Your task to perform on an android device: Is it going to rain today? Image 0: 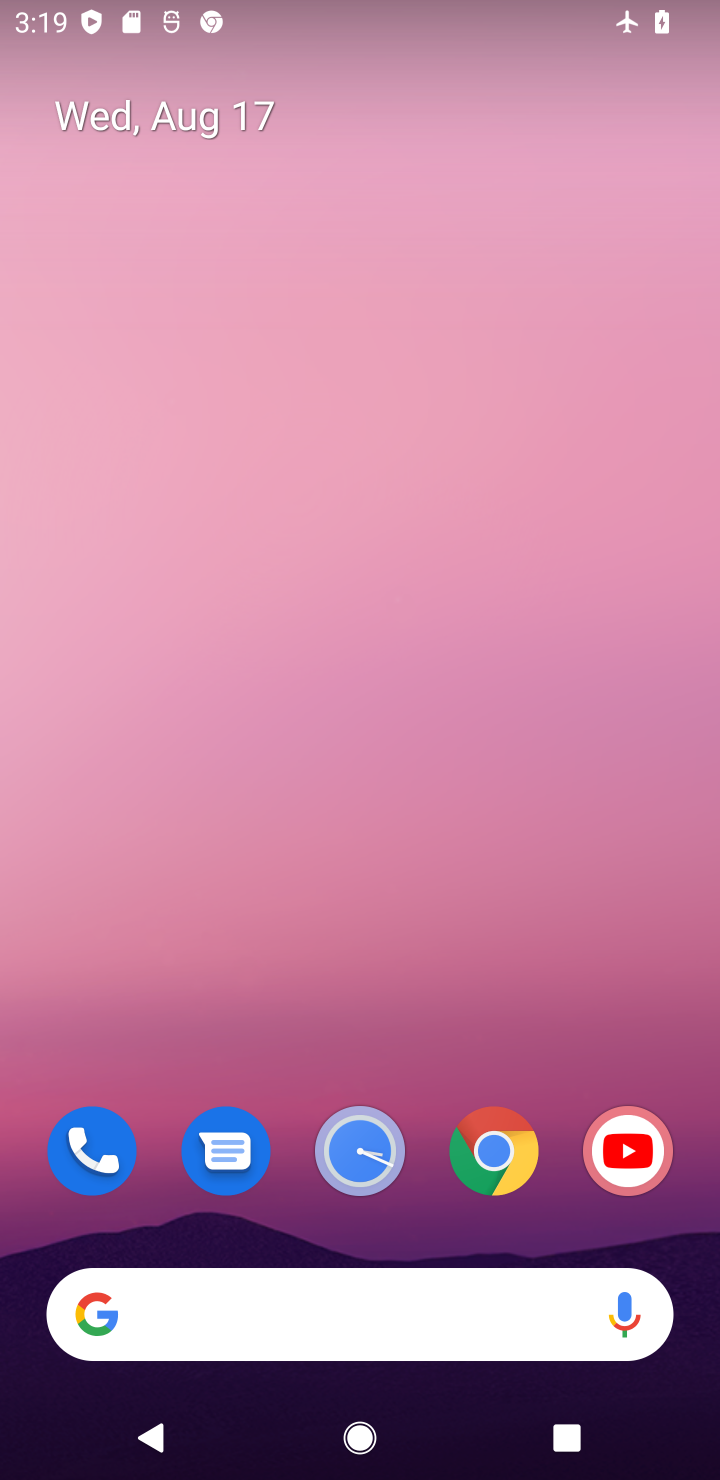
Step 0: drag from (339, 1296) to (359, 221)
Your task to perform on an android device: Is it going to rain today? Image 1: 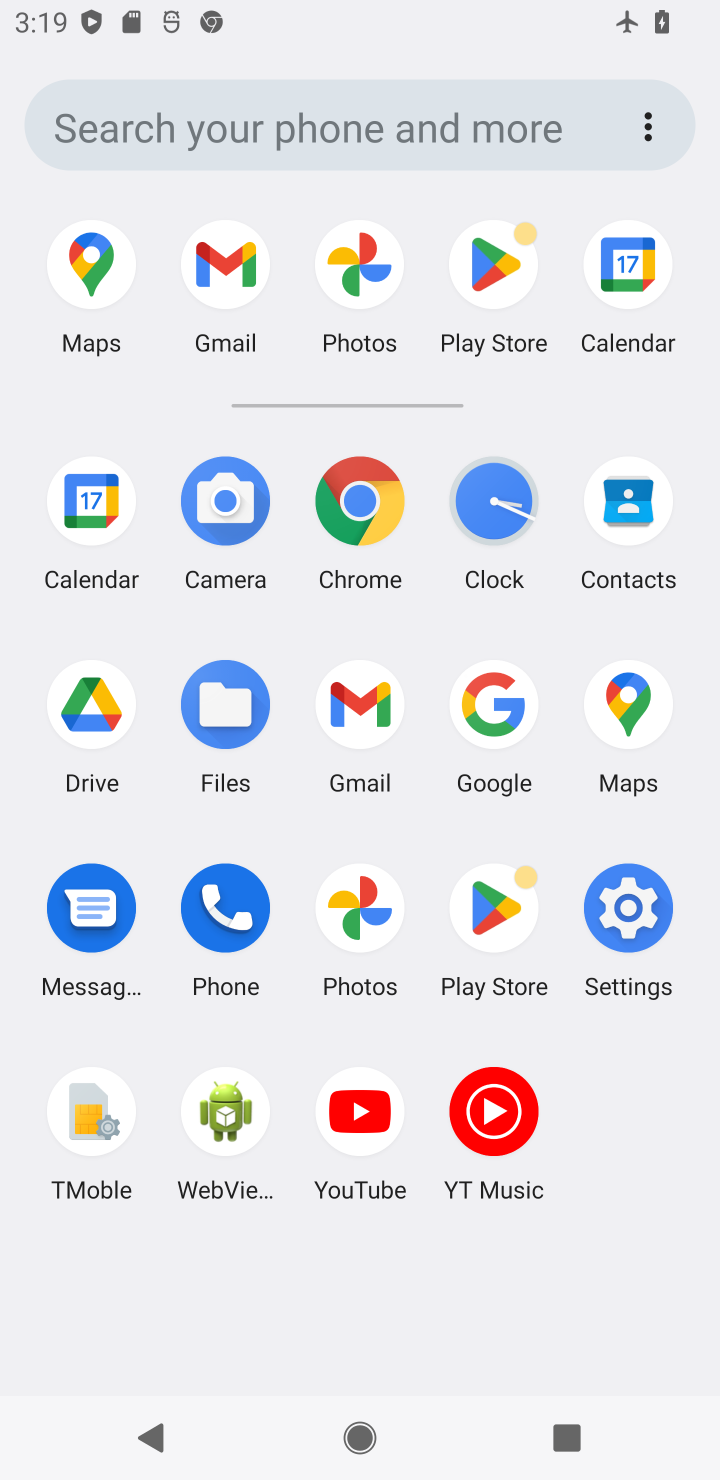
Step 1: click (336, 489)
Your task to perform on an android device: Is it going to rain today? Image 2: 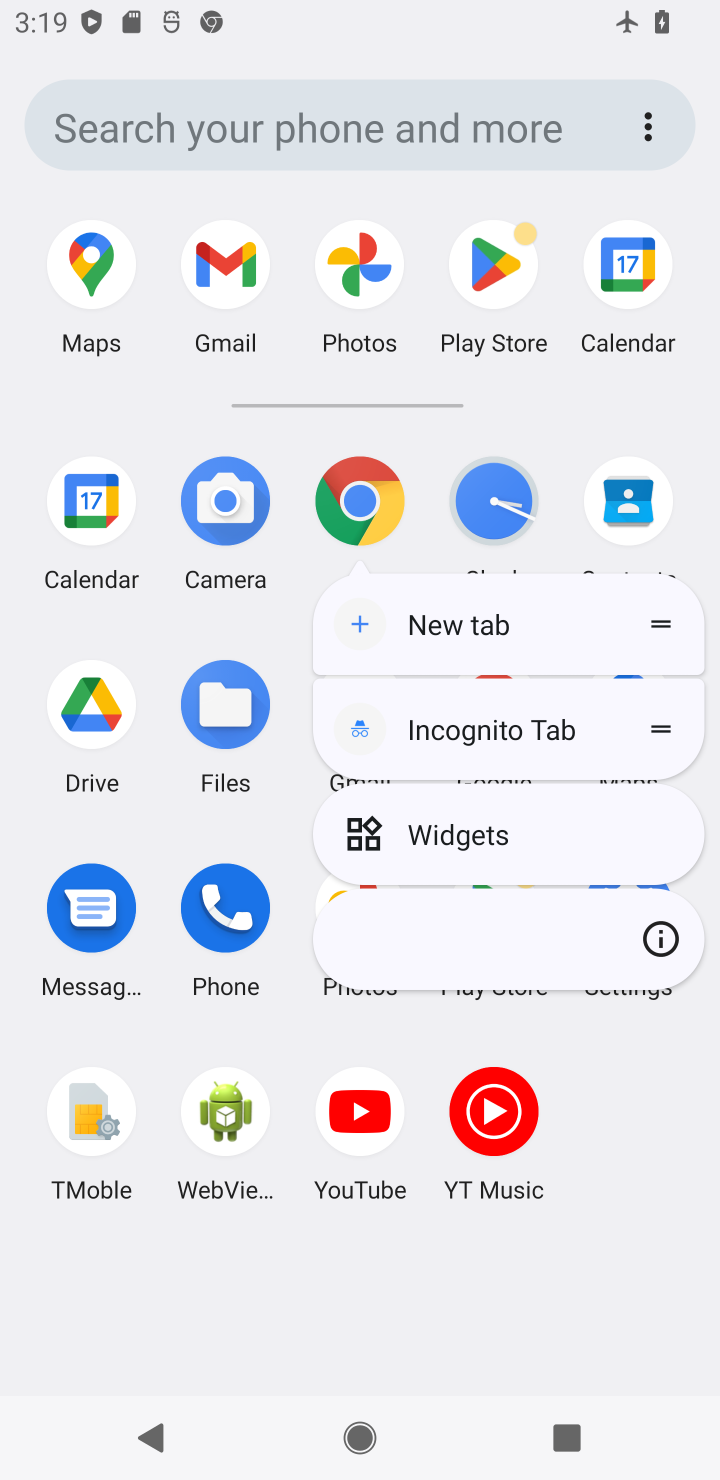
Step 2: click (343, 502)
Your task to perform on an android device: Is it going to rain today? Image 3: 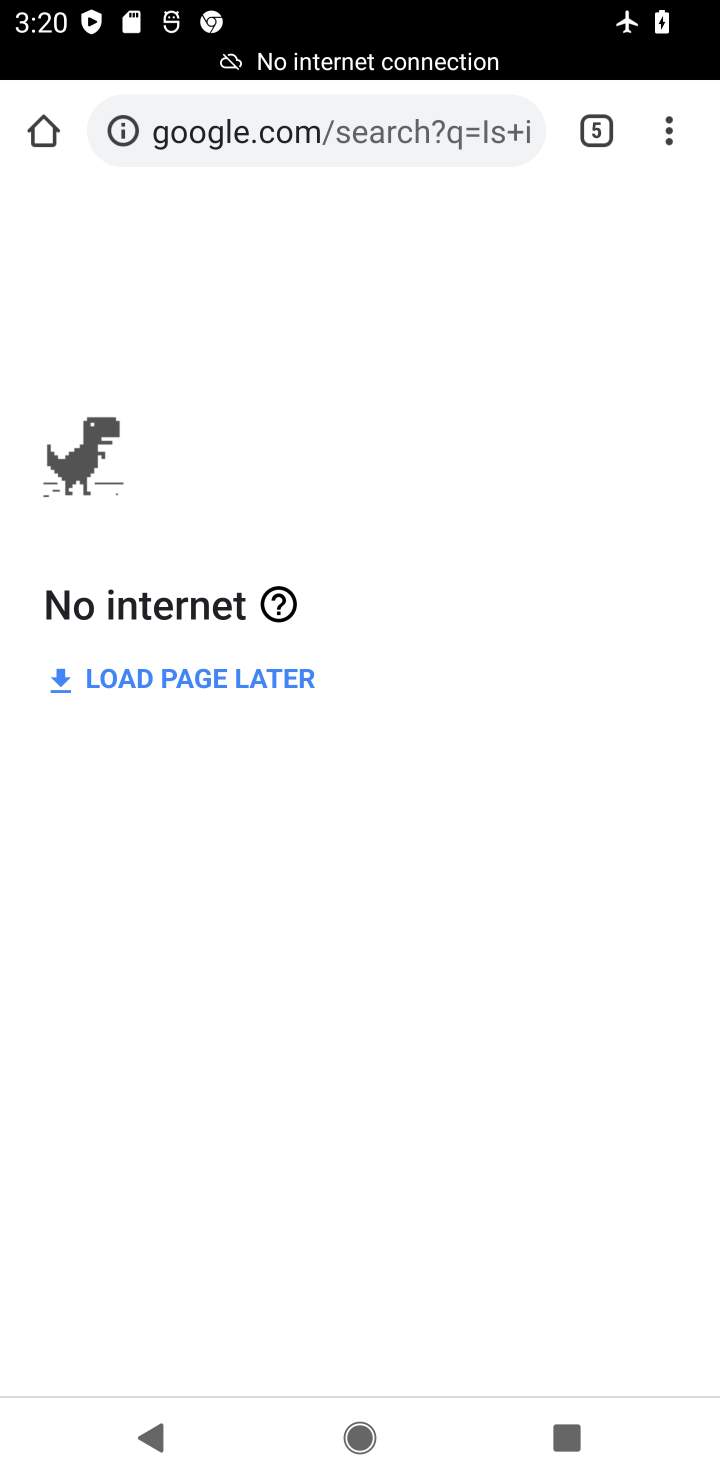
Step 3: click (666, 136)
Your task to perform on an android device: Is it going to rain today? Image 4: 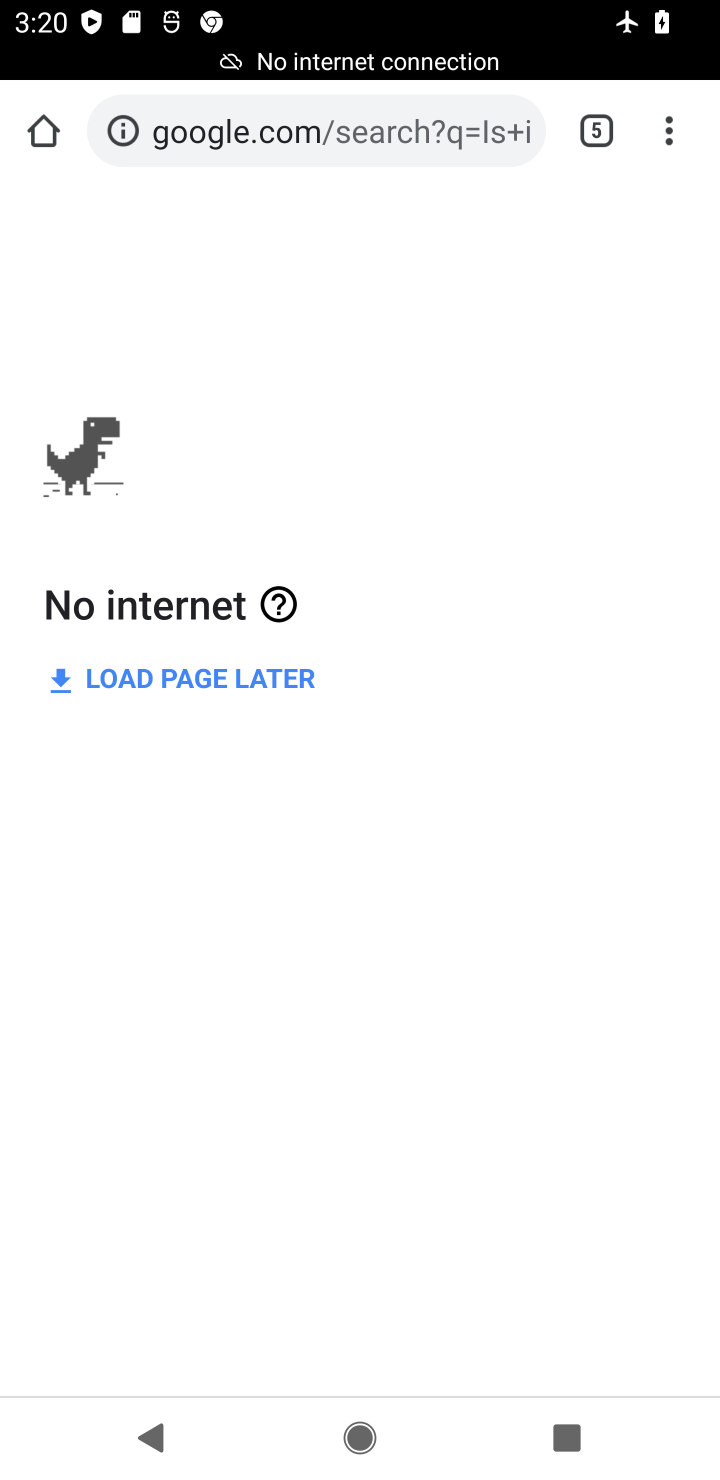
Step 4: click (674, 132)
Your task to perform on an android device: Is it going to rain today? Image 5: 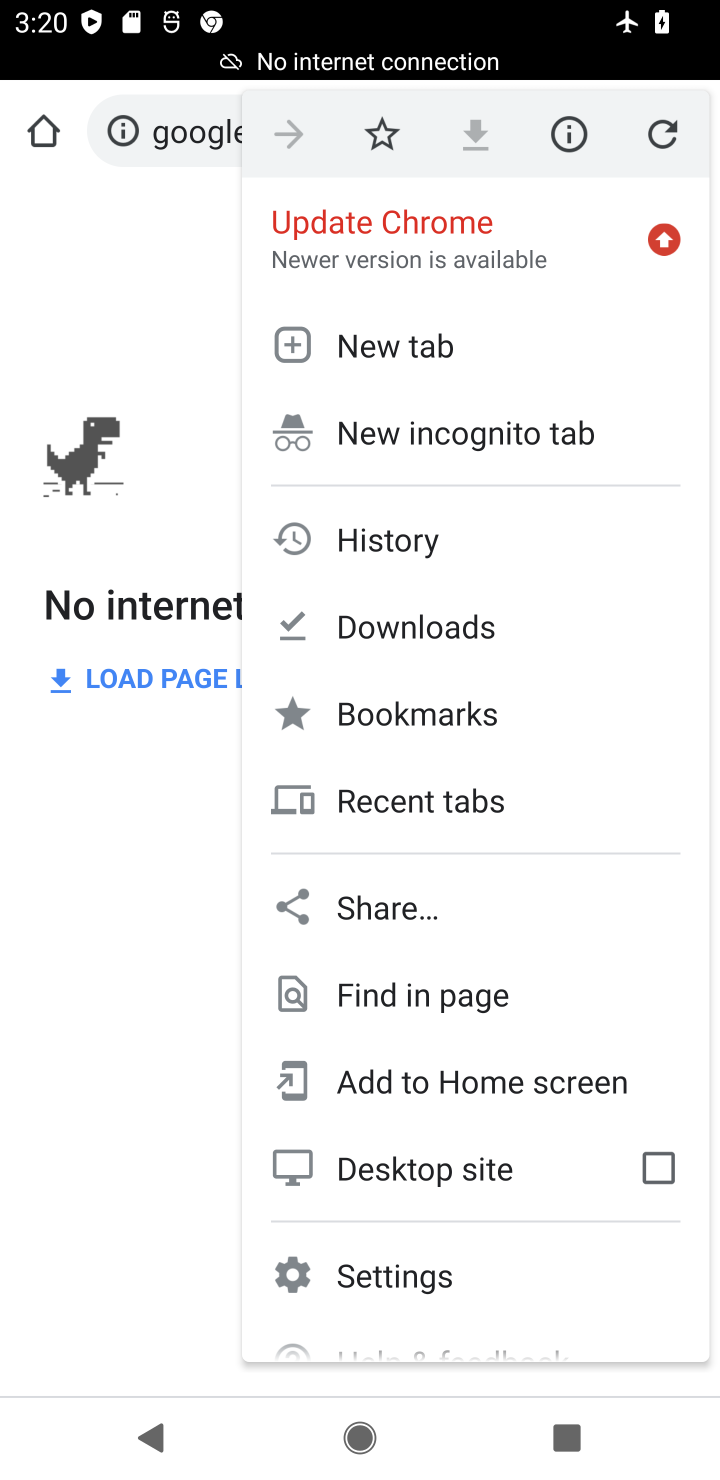
Step 5: click (369, 355)
Your task to perform on an android device: Is it going to rain today? Image 6: 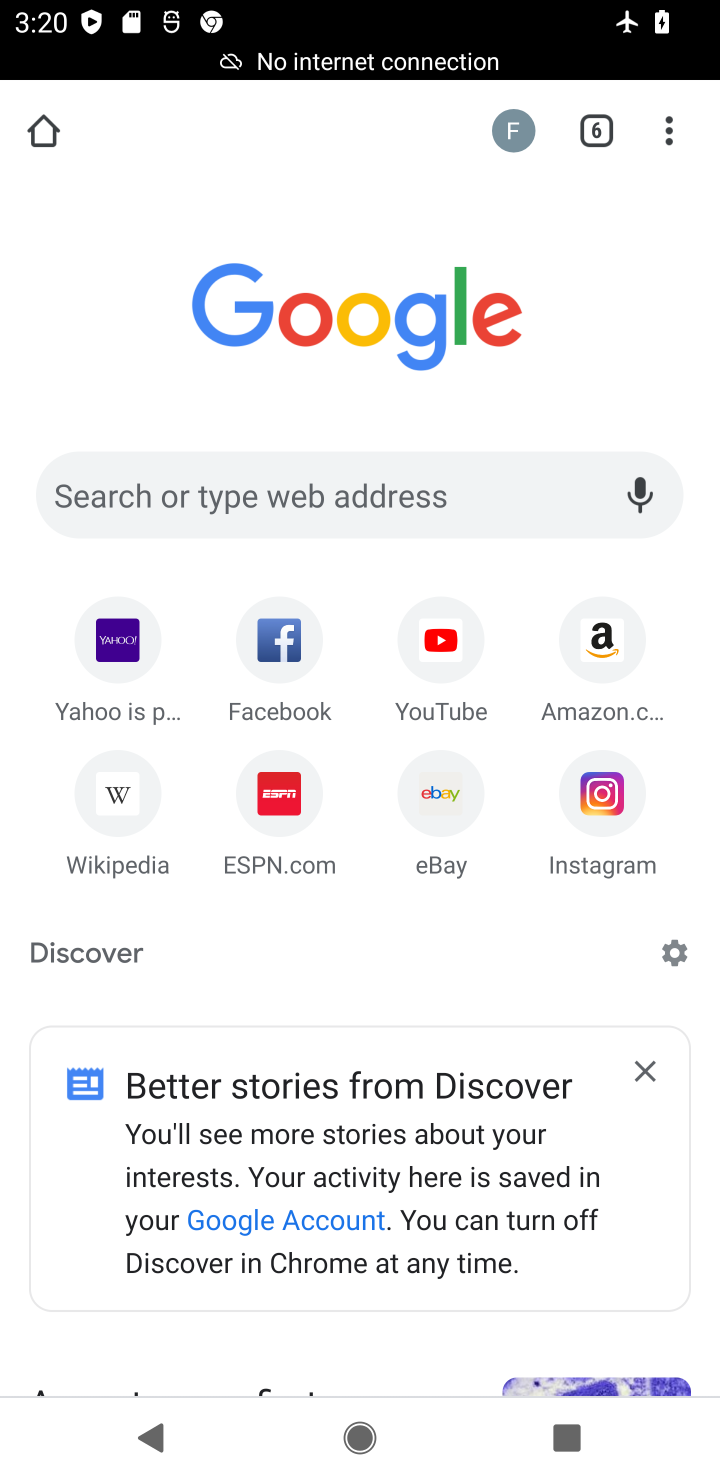
Step 6: click (336, 482)
Your task to perform on an android device: Is it going to rain today? Image 7: 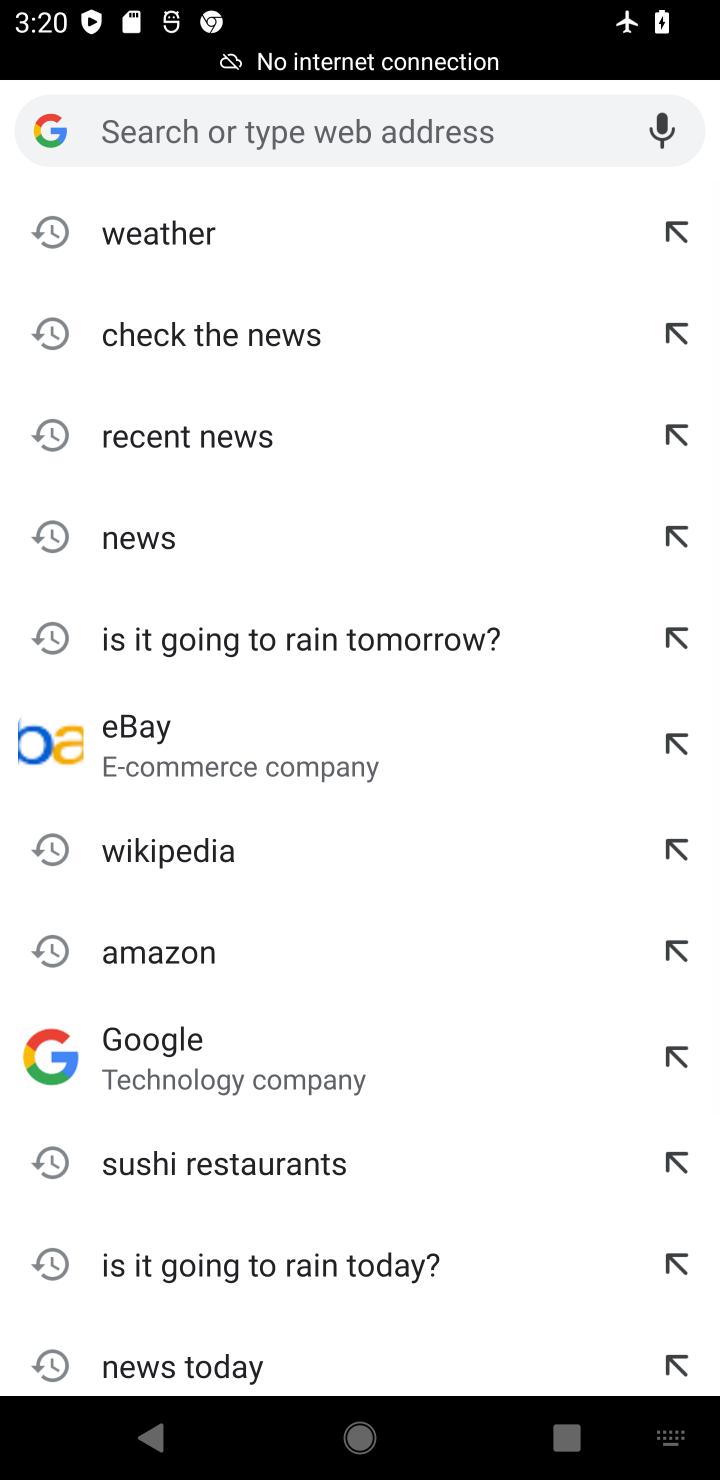
Step 7: type "Is it going to rain today? "
Your task to perform on an android device: Is it going to rain today? Image 8: 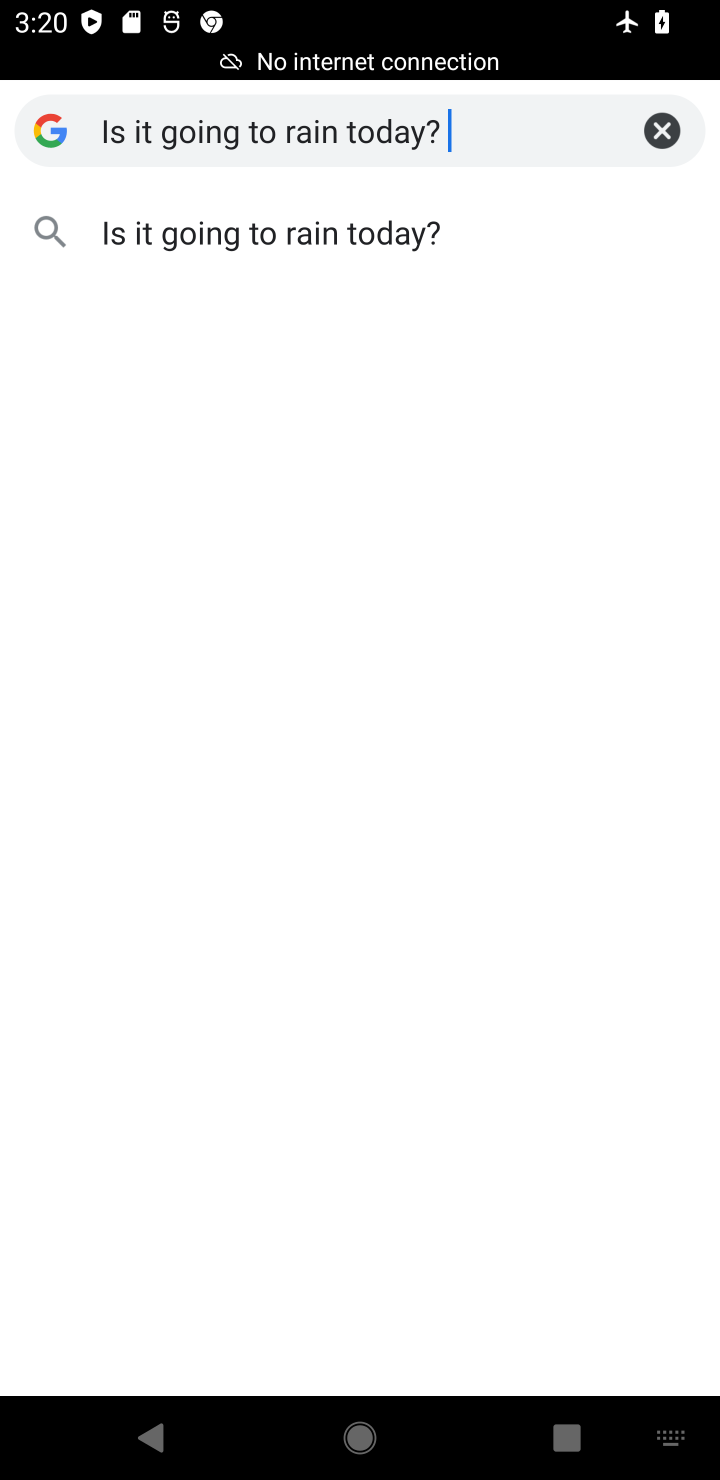
Step 8: click (388, 238)
Your task to perform on an android device: Is it going to rain today? Image 9: 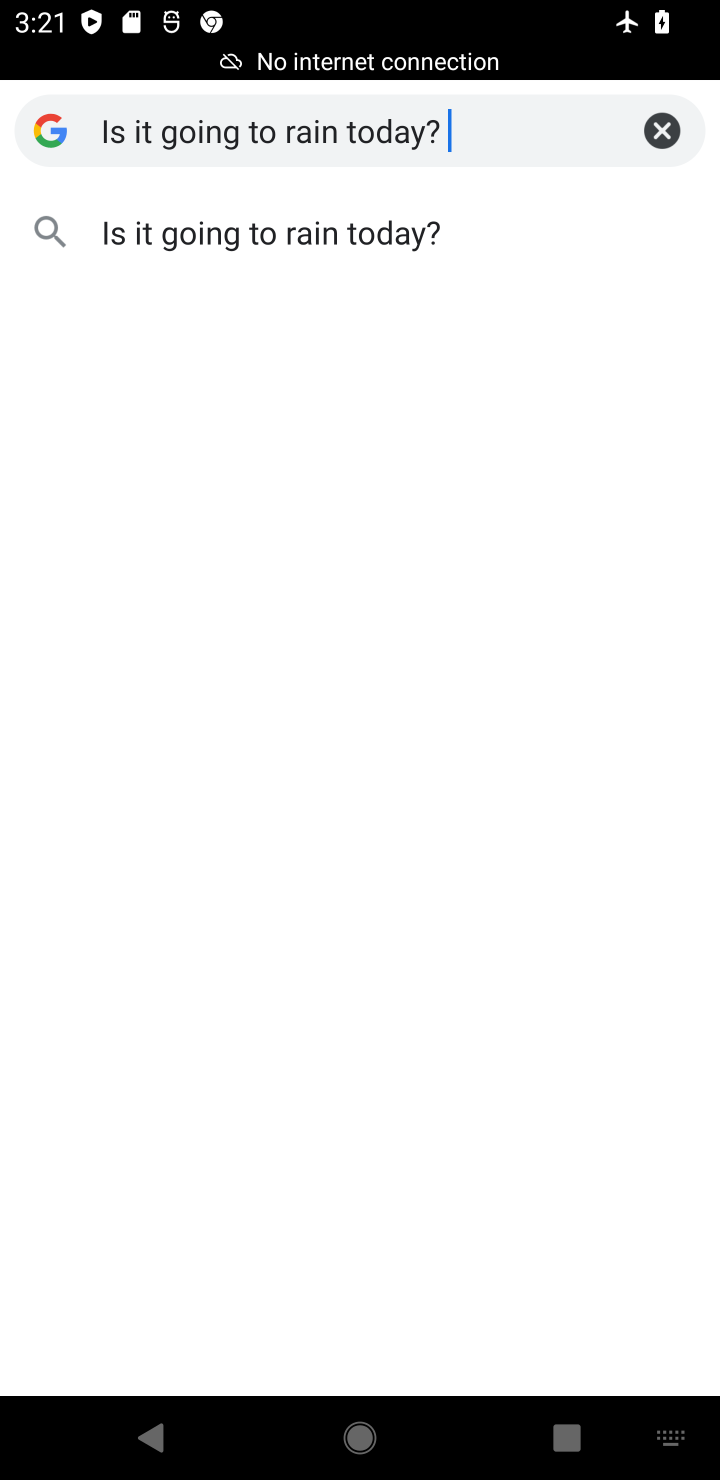
Step 9: click (388, 238)
Your task to perform on an android device: Is it going to rain today? Image 10: 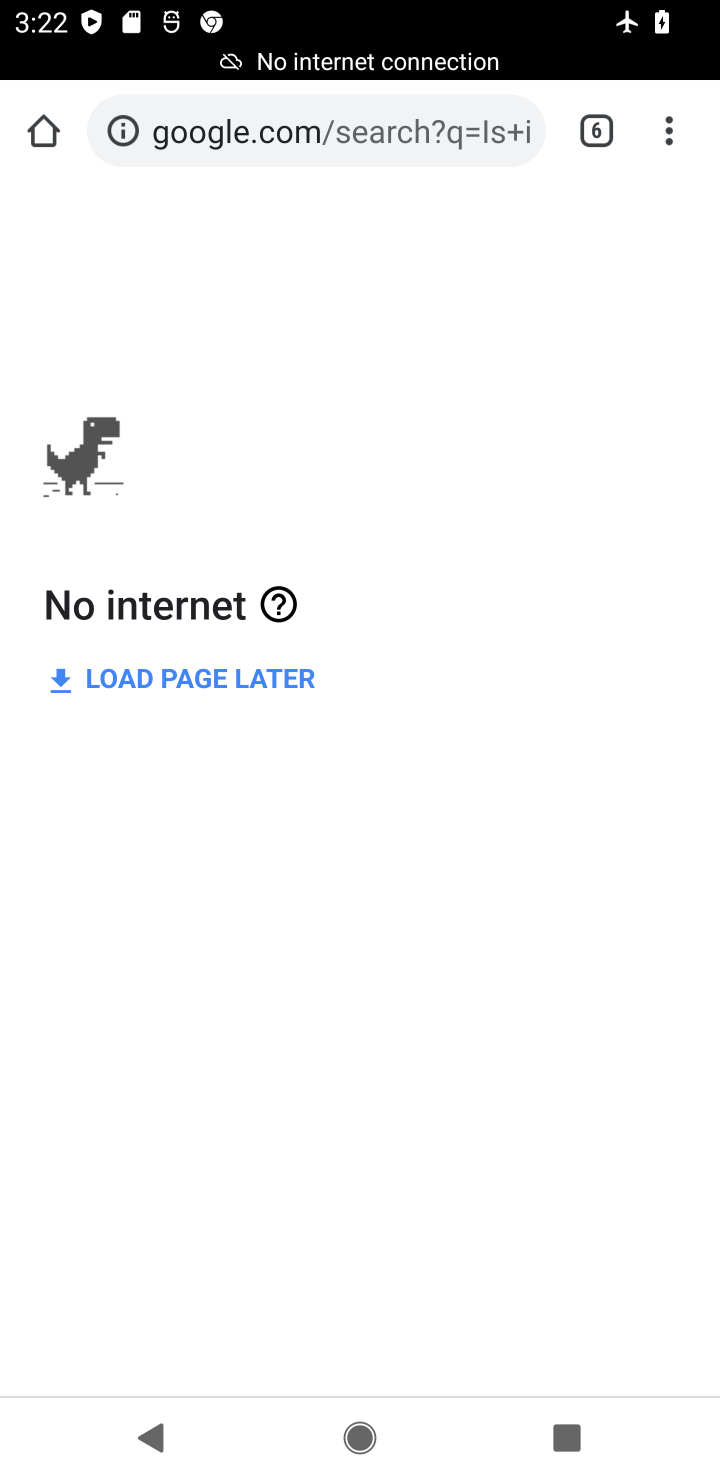
Step 10: task complete